Your task to perform on an android device: delete browsing data in the chrome app Image 0: 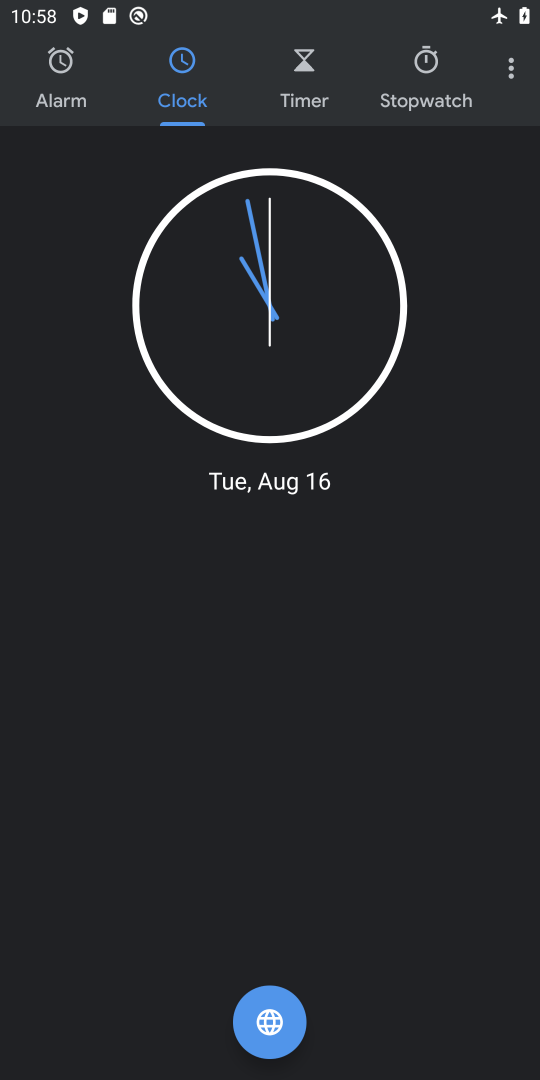
Step 0: press back button
Your task to perform on an android device: delete browsing data in the chrome app Image 1: 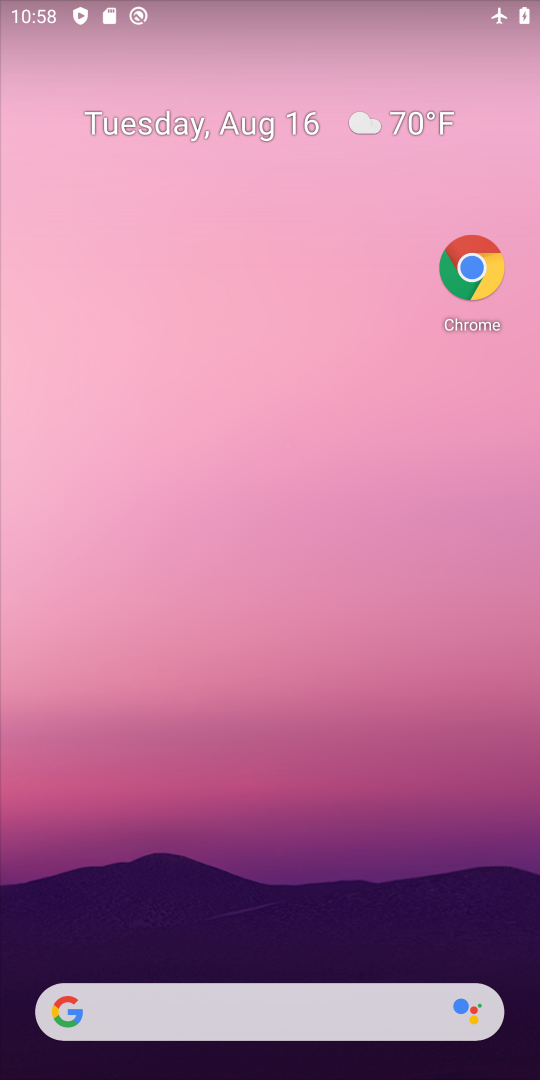
Step 1: click (456, 284)
Your task to perform on an android device: delete browsing data in the chrome app Image 2: 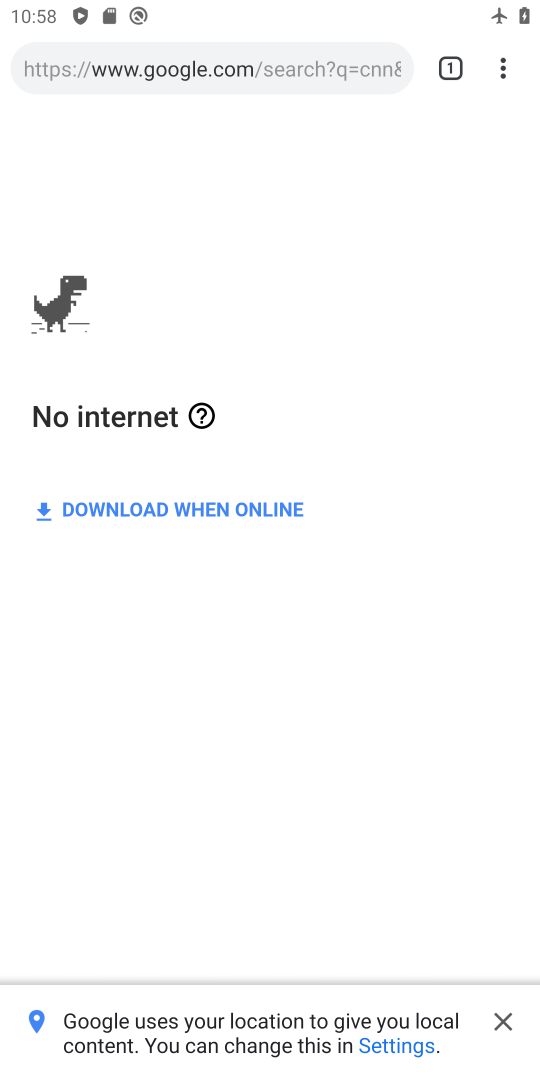
Step 2: click (506, 71)
Your task to perform on an android device: delete browsing data in the chrome app Image 3: 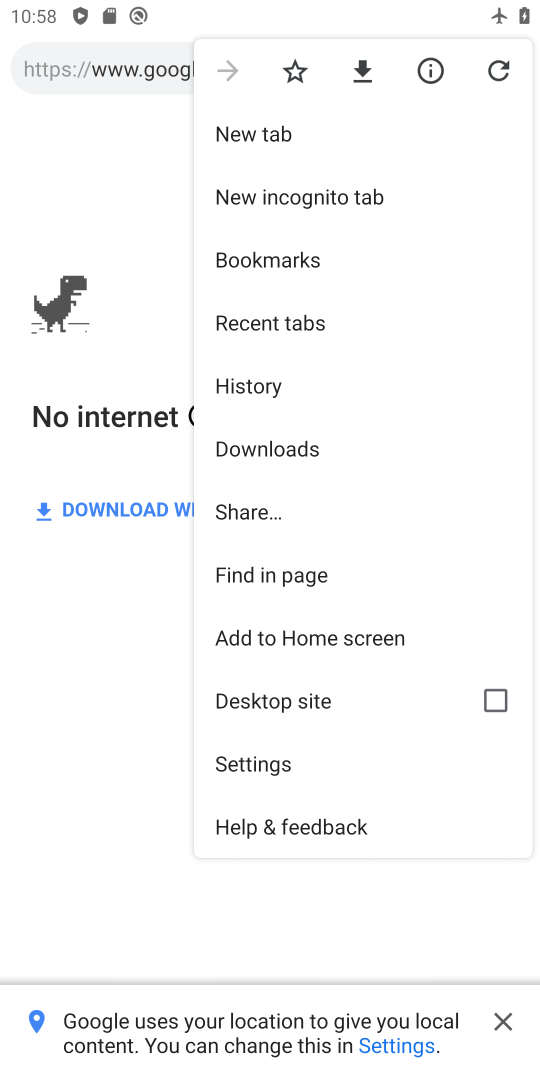
Step 3: click (239, 762)
Your task to perform on an android device: delete browsing data in the chrome app Image 4: 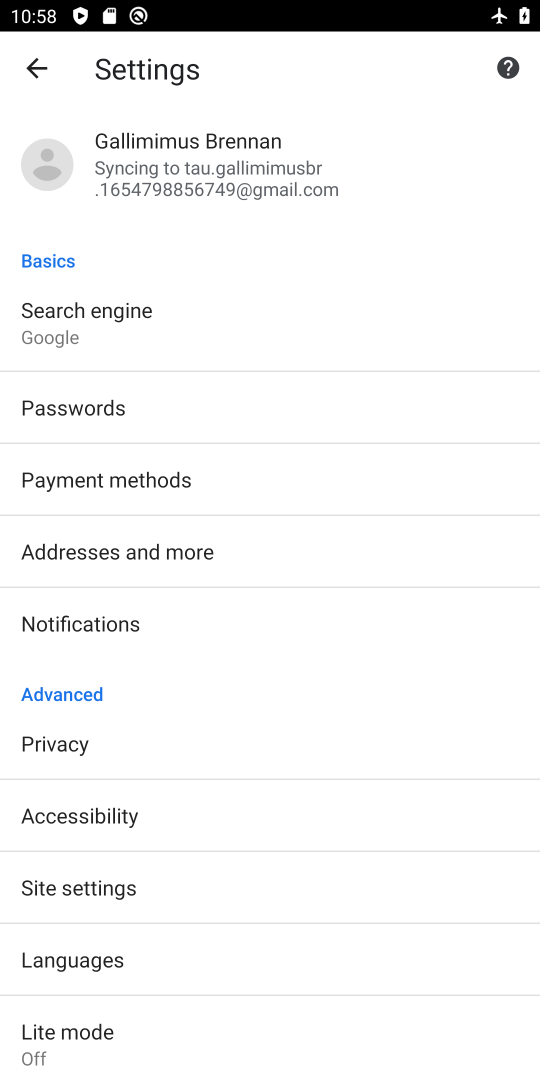
Step 4: click (50, 743)
Your task to perform on an android device: delete browsing data in the chrome app Image 5: 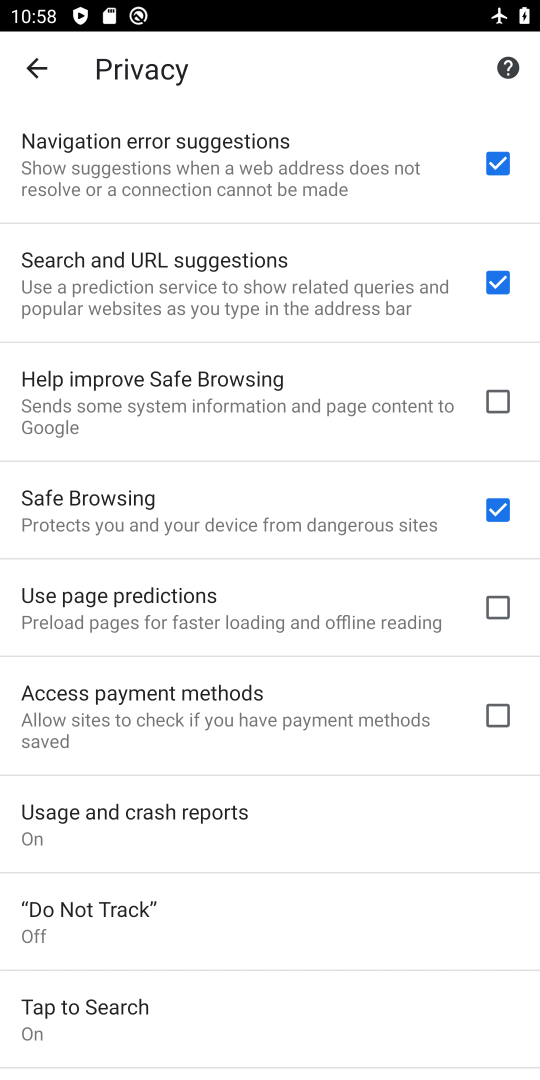
Step 5: drag from (199, 924) to (81, 395)
Your task to perform on an android device: delete browsing data in the chrome app Image 6: 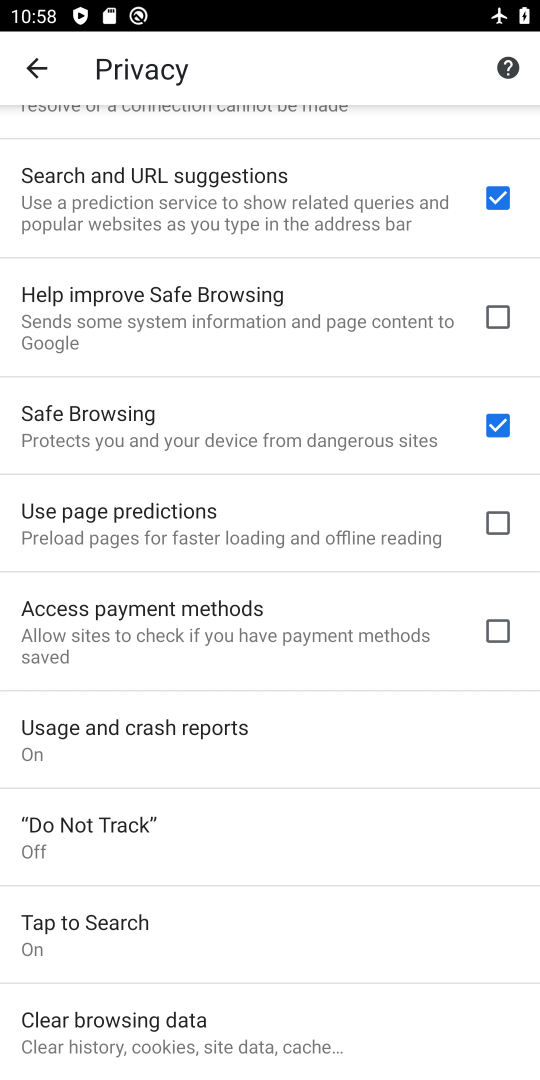
Step 6: click (120, 1012)
Your task to perform on an android device: delete browsing data in the chrome app Image 7: 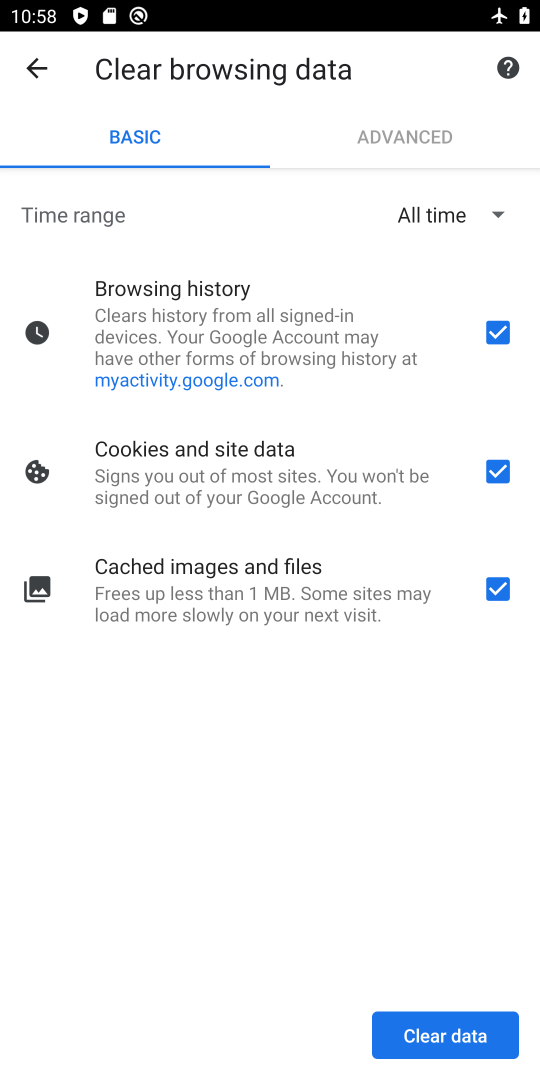
Step 7: click (430, 1015)
Your task to perform on an android device: delete browsing data in the chrome app Image 8: 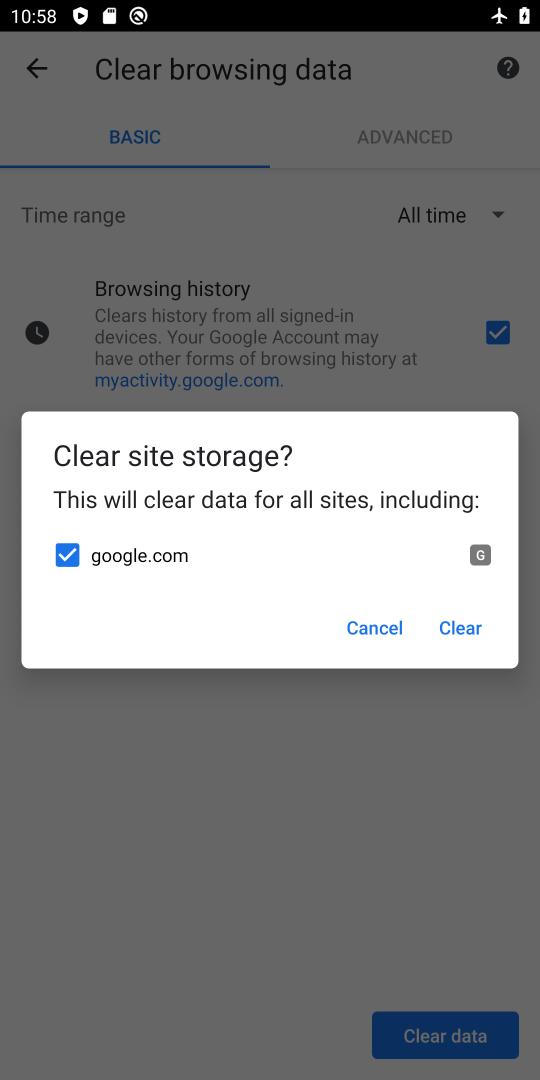
Step 8: click (486, 623)
Your task to perform on an android device: delete browsing data in the chrome app Image 9: 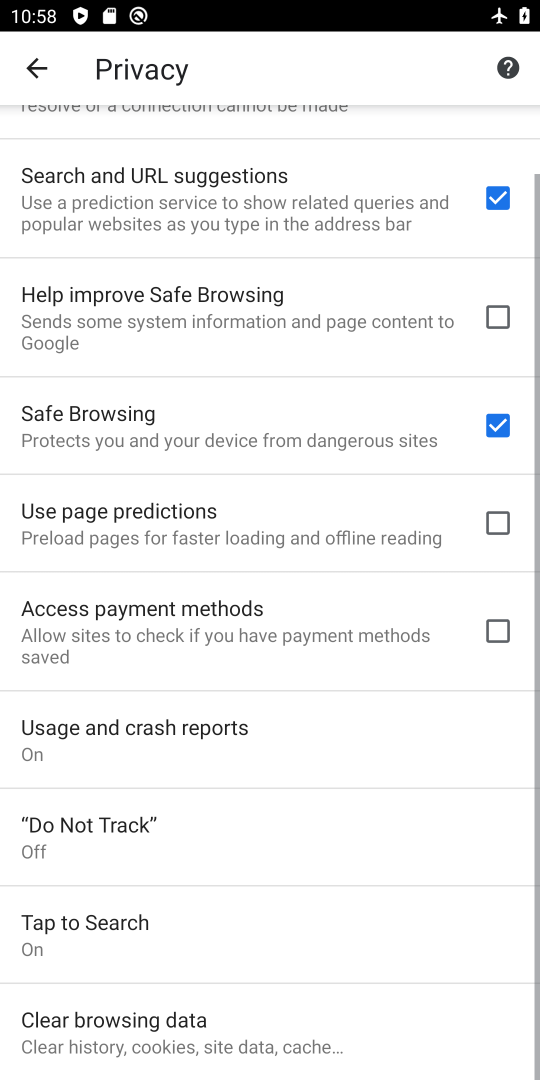
Step 9: task complete